Your task to perform on an android device: change keyboard looks Image 0: 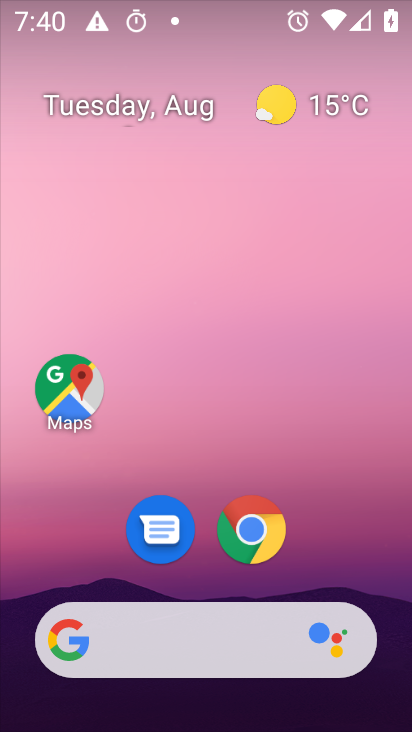
Step 0: press home button
Your task to perform on an android device: change keyboard looks Image 1: 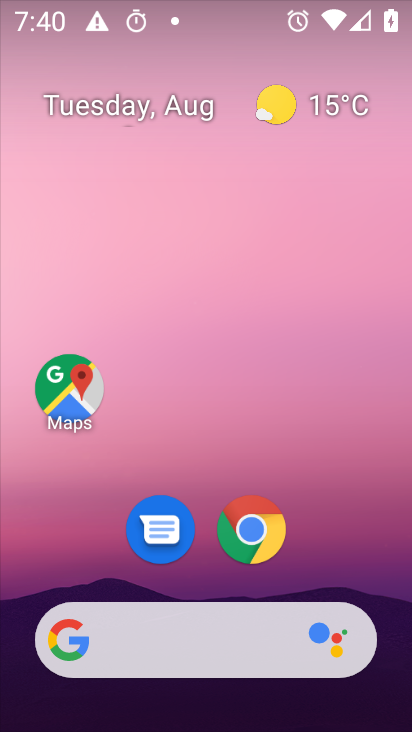
Step 1: drag from (214, 532) to (204, 65)
Your task to perform on an android device: change keyboard looks Image 2: 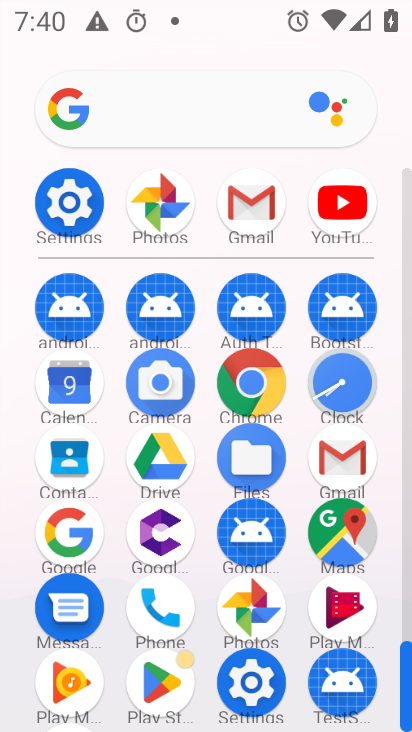
Step 2: click (66, 208)
Your task to perform on an android device: change keyboard looks Image 3: 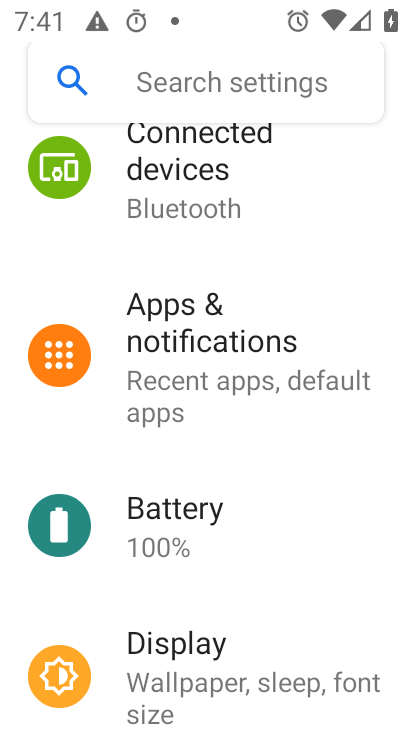
Step 3: drag from (308, 611) to (242, 7)
Your task to perform on an android device: change keyboard looks Image 4: 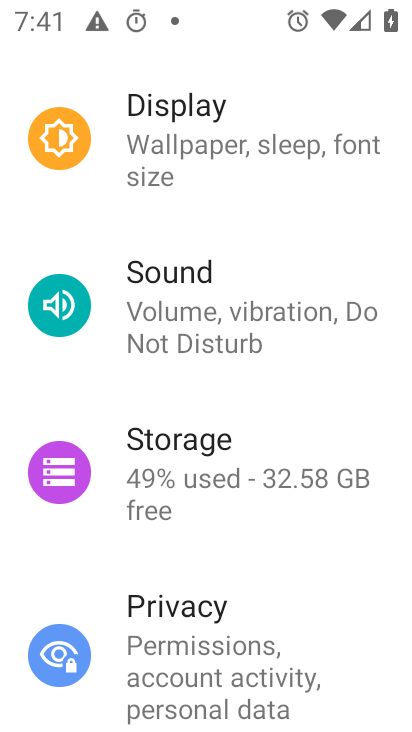
Step 4: drag from (323, 580) to (288, 21)
Your task to perform on an android device: change keyboard looks Image 5: 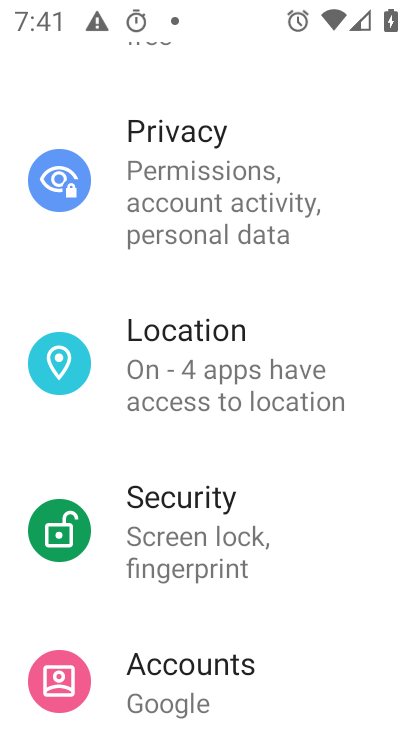
Step 5: drag from (322, 639) to (258, 41)
Your task to perform on an android device: change keyboard looks Image 6: 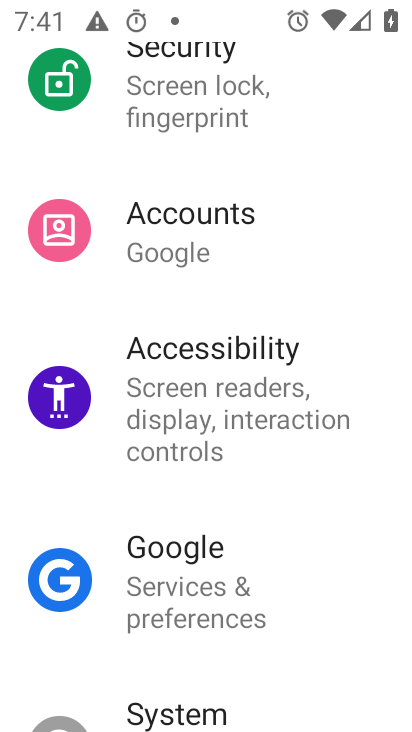
Step 6: click (187, 710)
Your task to perform on an android device: change keyboard looks Image 7: 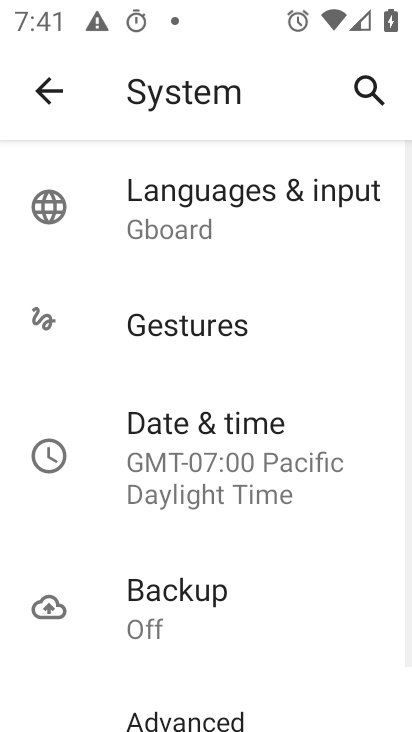
Step 7: drag from (324, 618) to (284, 731)
Your task to perform on an android device: change keyboard looks Image 8: 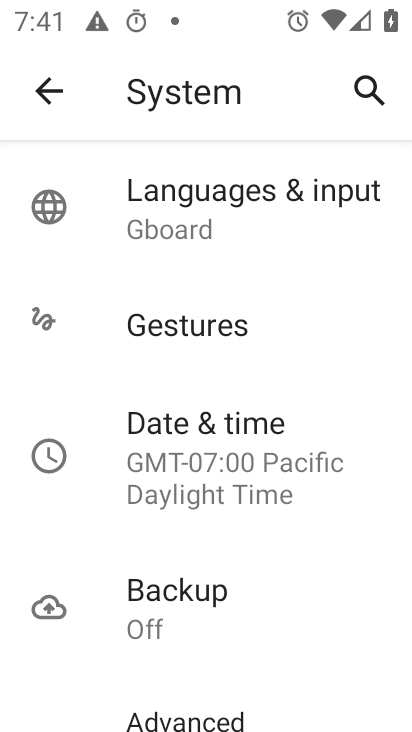
Step 8: click (198, 207)
Your task to perform on an android device: change keyboard looks Image 9: 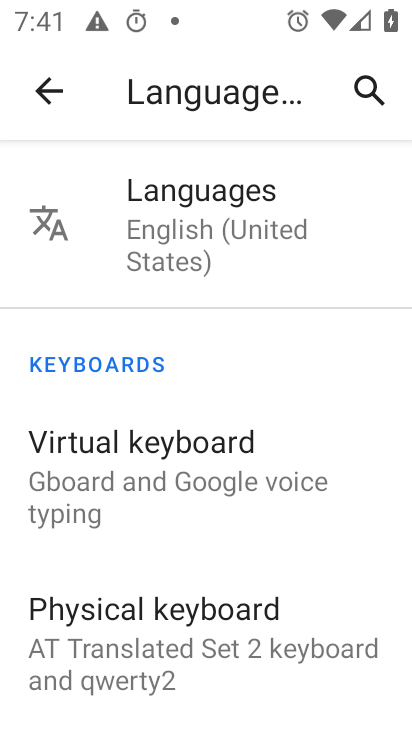
Step 9: click (162, 461)
Your task to perform on an android device: change keyboard looks Image 10: 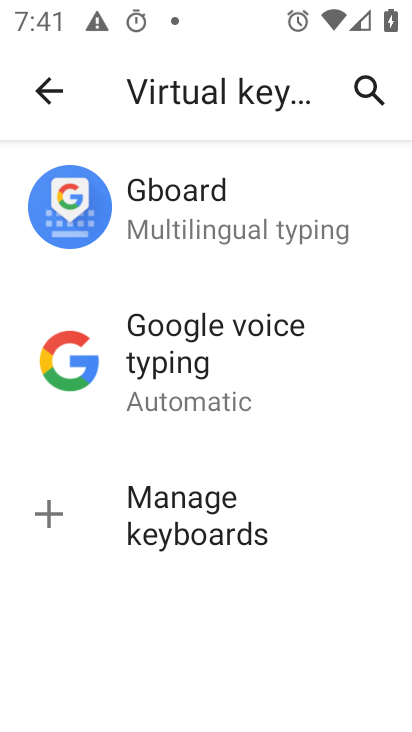
Step 10: click (182, 181)
Your task to perform on an android device: change keyboard looks Image 11: 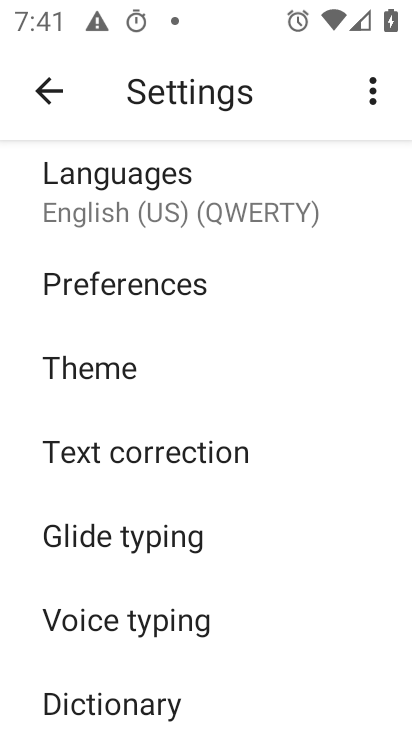
Step 11: click (86, 372)
Your task to perform on an android device: change keyboard looks Image 12: 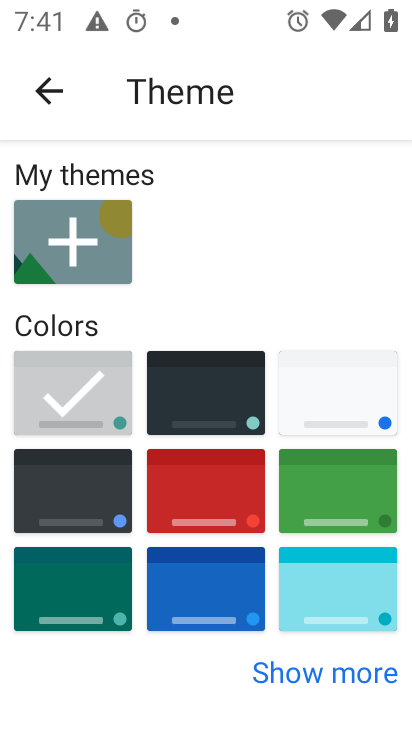
Step 12: click (210, 588)
Your task to perform on an android device: change keyboard looks Image 13: 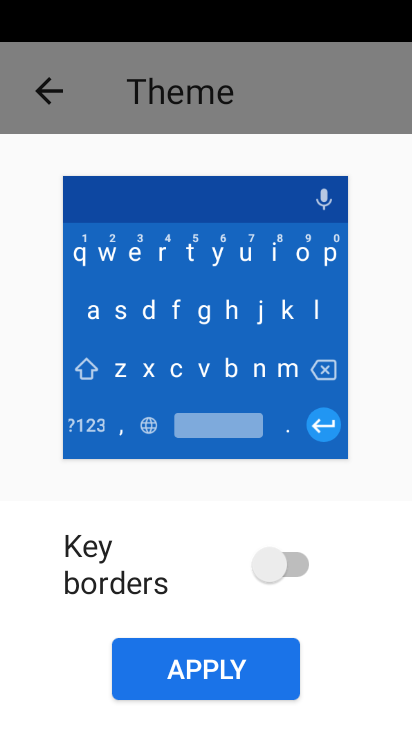
Step 13: click (161, 673)
Your task to perform on an android device: change keyboard looks Image 14: 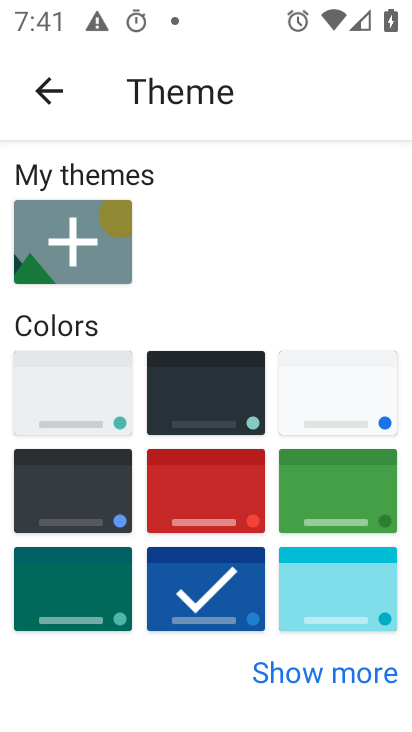
Step 14: task complete